Your task to perform on an android device: refresh tabs in the chrome app Image 0: 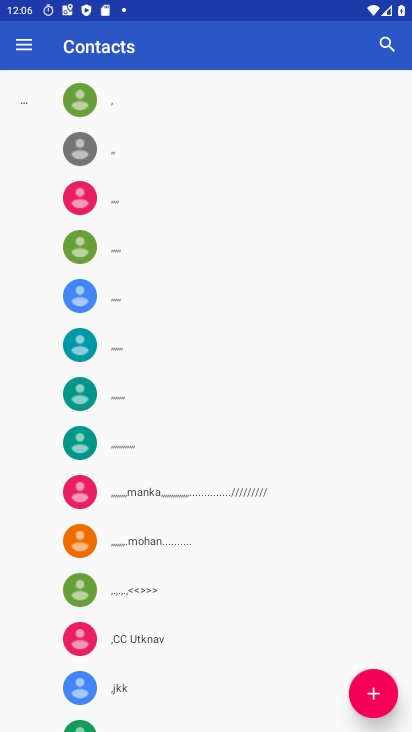
Step 0: press home button
Your task to perform on an android device: refresh tabs in the chrome app Image 1: 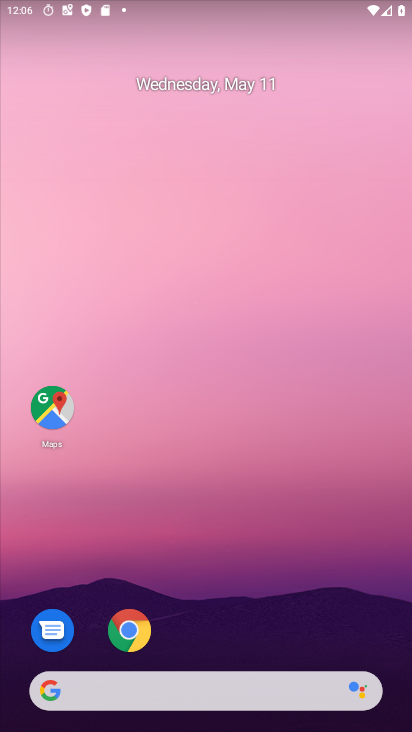
Step 1: click (136, 620)
Your task to perform on an android device: refresh tabs in the chrome app Image 2: 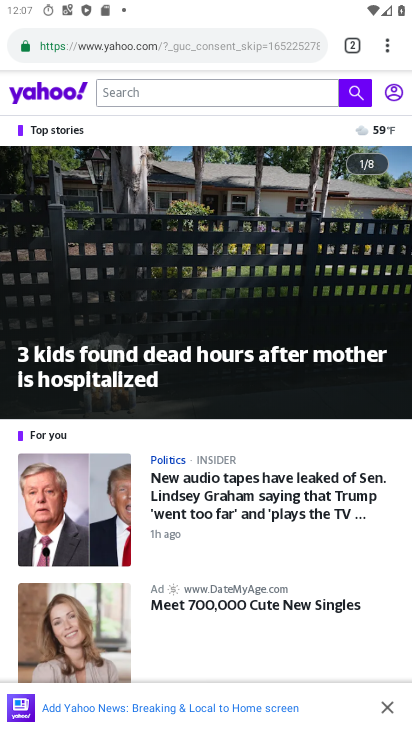
Step 2: click (391, 38)
Your task to perform on an android device: refresh tabs in the chrome app Image 3: 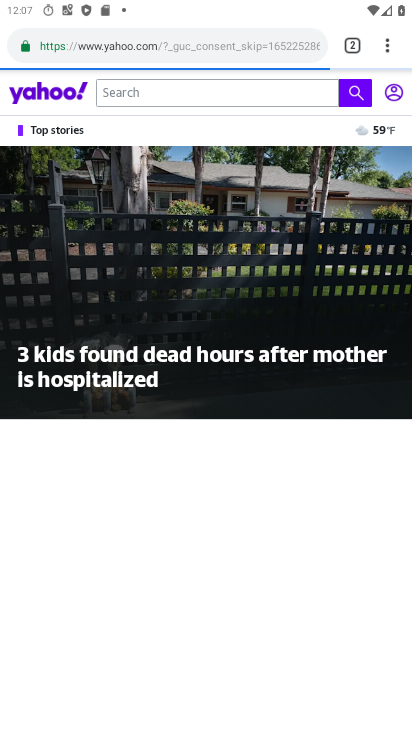
Step 3: drag from (388, 43) to (383, 187)
Your task to perform on an android device: refresh tabs in the chrome app Image 4: 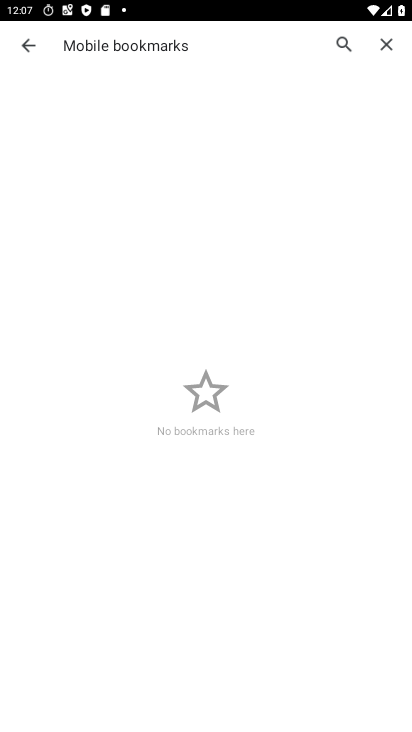
Step 4: click (383, 48)
Your task to perform on an android device: refresh tabs in the chrome app Image 5: 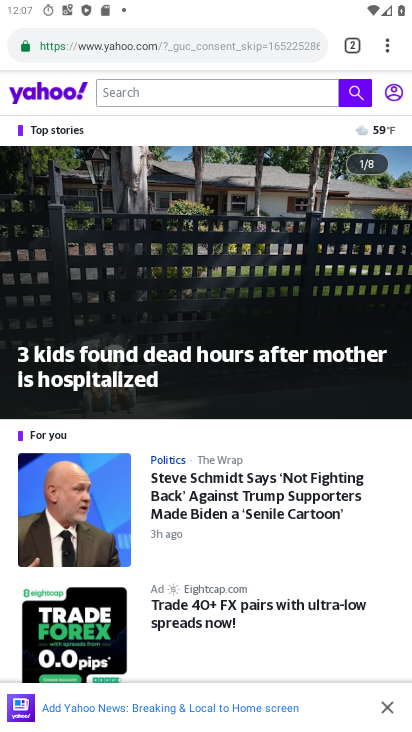
Step 5: task complete